Your task to perform on an android device: empty trash in the gmail app Image 0: 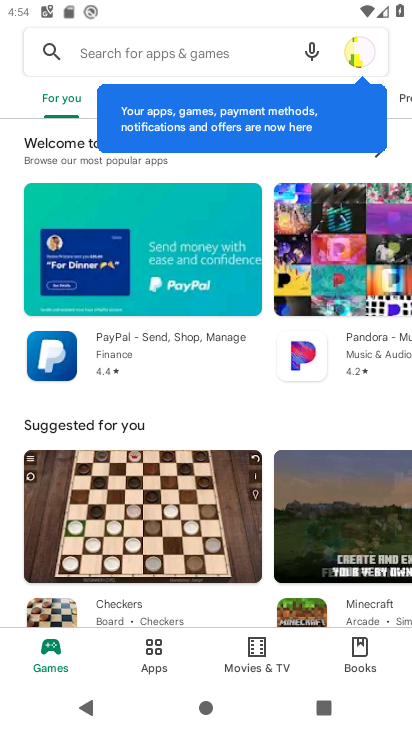
Step 0: press home button
Your task to perform on an android device: empty trash in the gmail app Image 1: 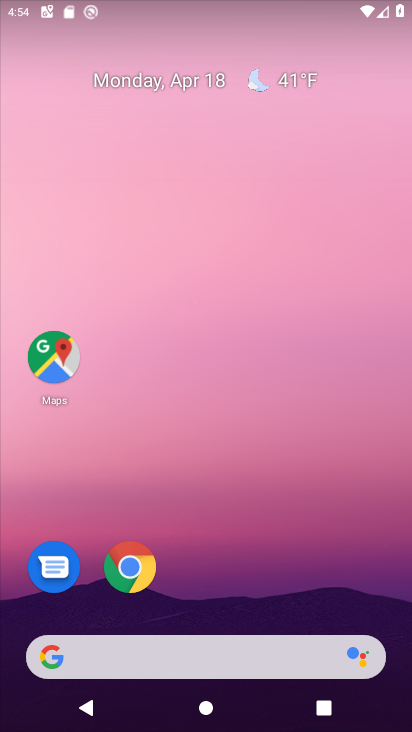
Step 1: drag from (234, 444) to (216, 4)
Your task to perform on an android device: empty trash in the gmail app Image 2: 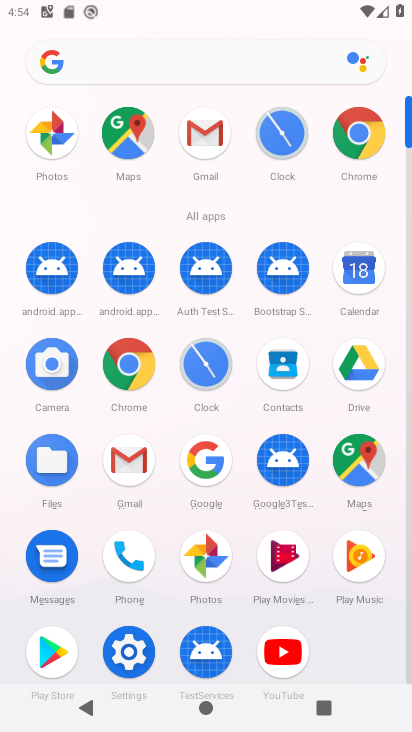
Step 2: click (204, 147)
Your task to perform on an android device: empty trash in the gmail app Image 3: 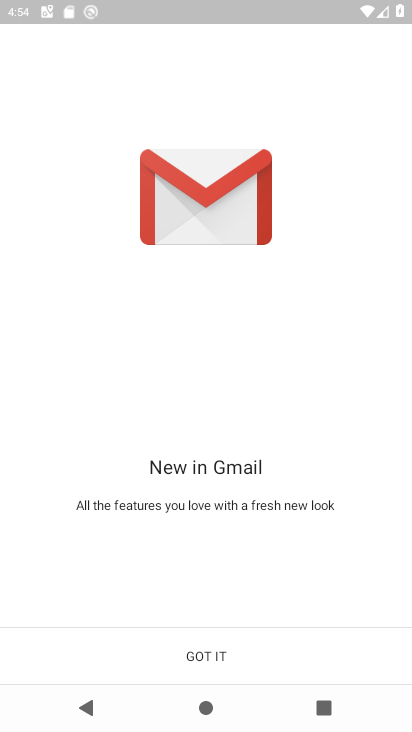
Step 3: click (218, 651)
Your task to perform on an android device: empty trash in the gmail app Image 4: 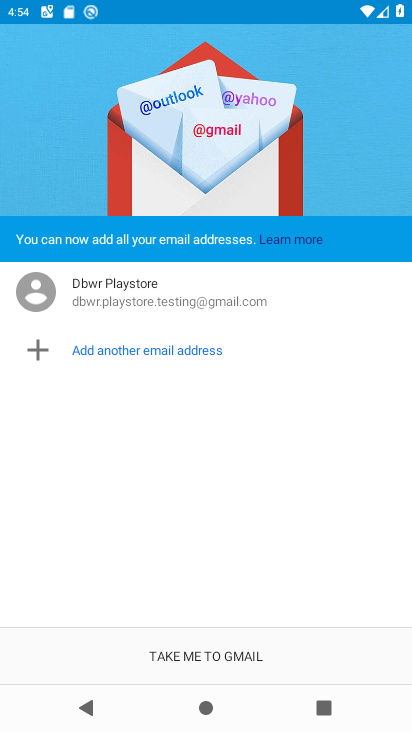
Step 4: drag from (78, 674) to (181, 649)
Your task to perform on an android device: empty trash in the gmail app Image 5: 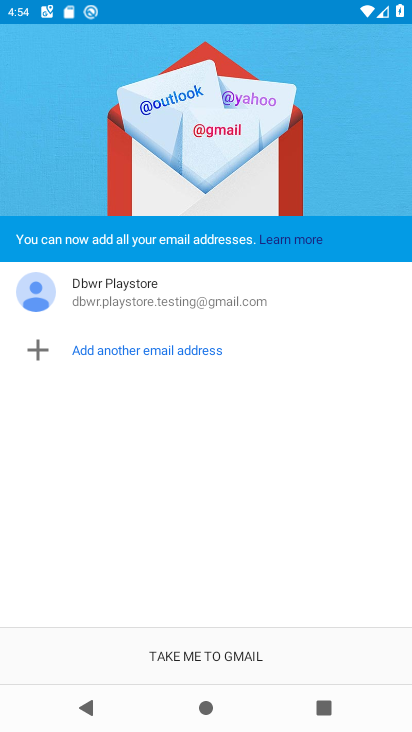
Step 5: click (153, 664)
Your task to perform on an android device: empty trash in the gmail app Image 6: 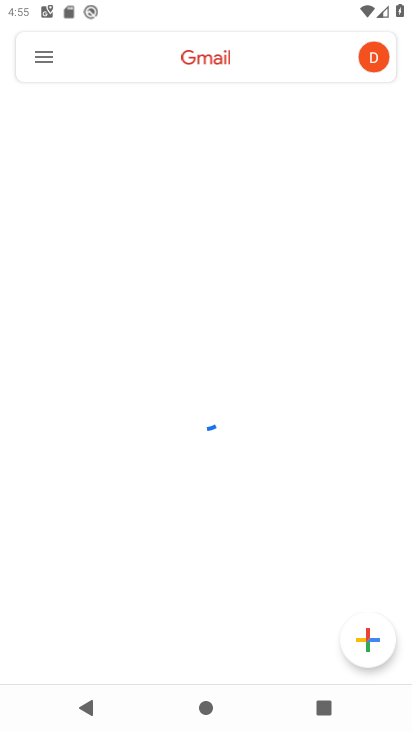
Step 6: click (53, 61)
Your task to perform on an android device: empty trash in the gmail app Image 7: 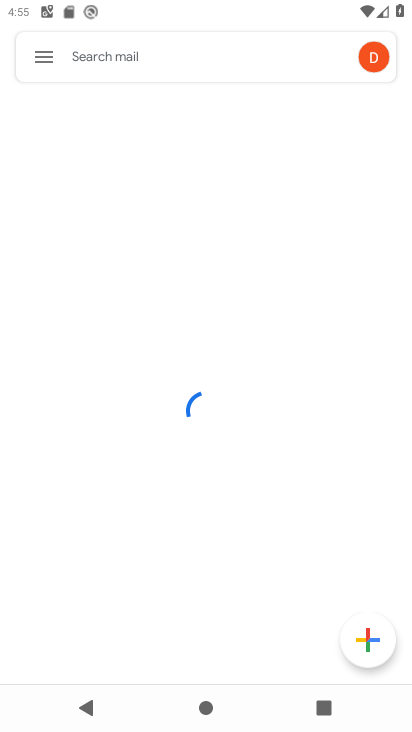
Step 7: click (47, 70)
Your task to perform on an android device: empty trash in the gmail app Image 8: 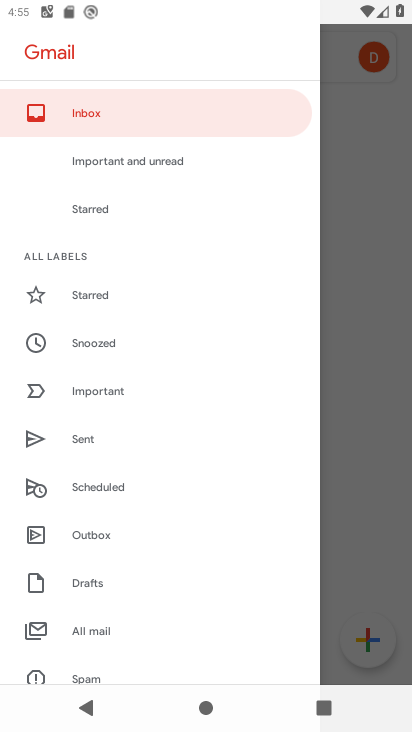
Step 8: drag from (116, 525) to (105, 267)
Your task to perform on an android device: empty trash in the gmail app Image 9: 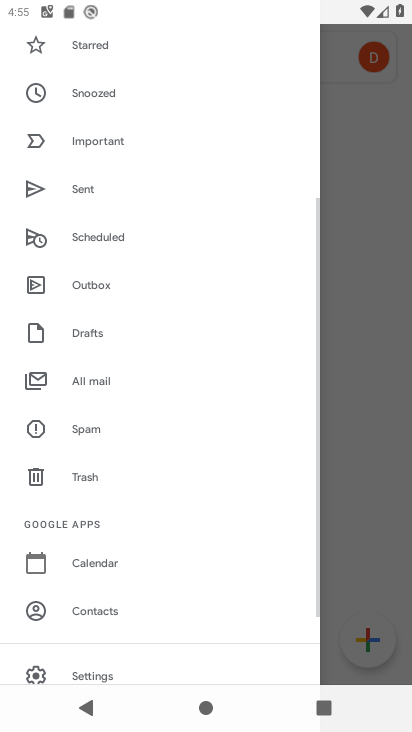
Step 9: click (98, 470)
Your task to perform on an android device: empty trash in the gmail app Image 10: 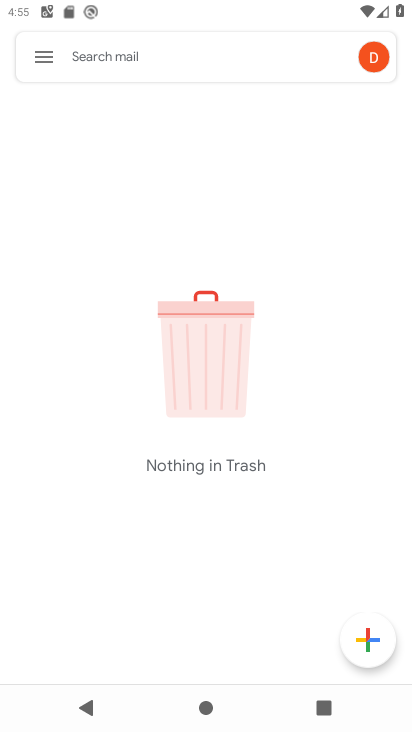
Step 10: task complete